Your task to perform on an android device: Open location settings Image 0: 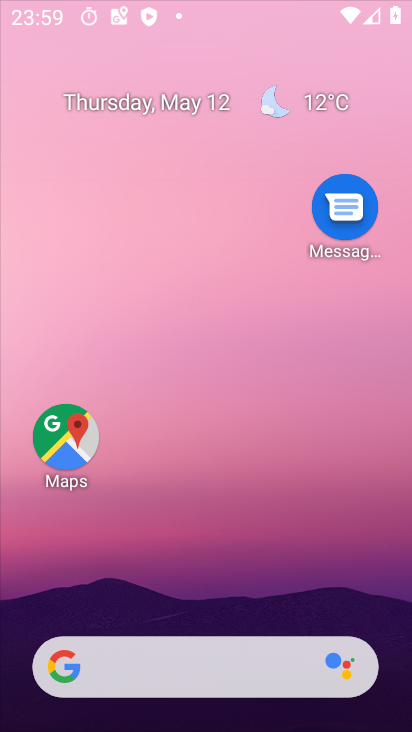
Step 0: press home button
Your task to perform on an android device: Open location settings Image 1: 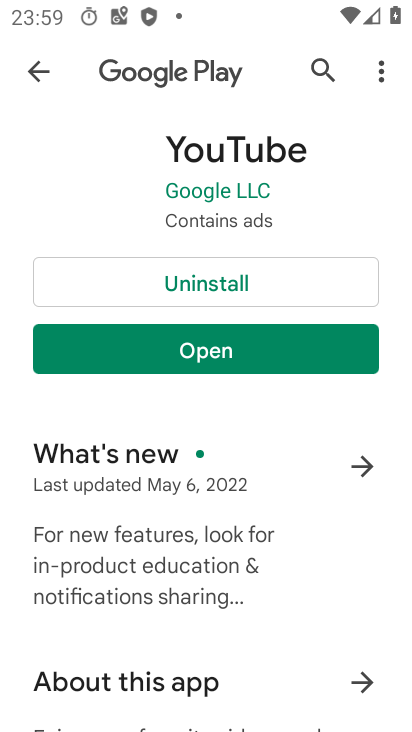
Step 1: press home button
Your task to perform on an android device: Open location settings Image 2: 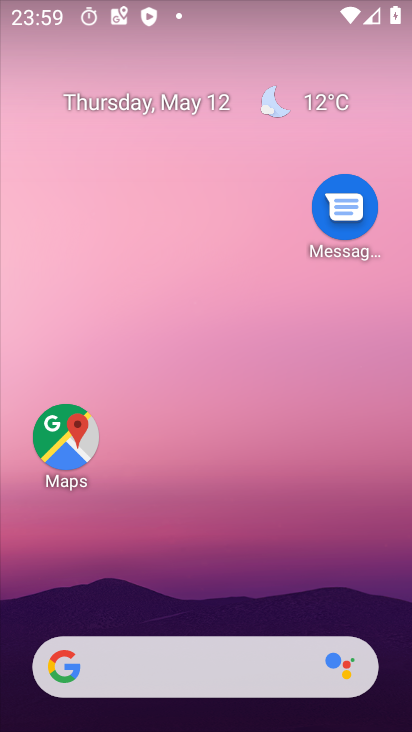
Step 2: drag from (282, 569) to (295, 6)
Your task to perform on an android device: Open location settings Image 3: 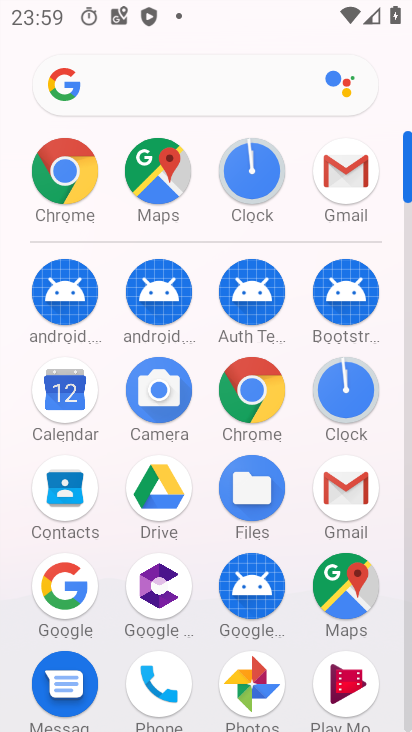
Step 3: click (409, 723)
Your task to perform on an android device: Open location settings Image 4: 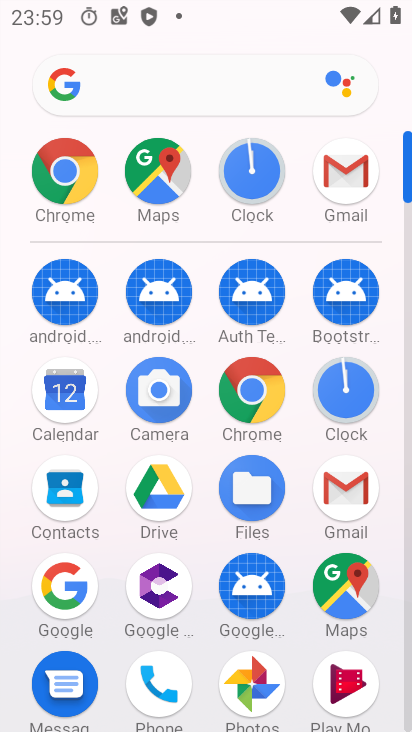
Step 4: click (409, 723)
Your task to perform on an android device: Open location settings Image 5: 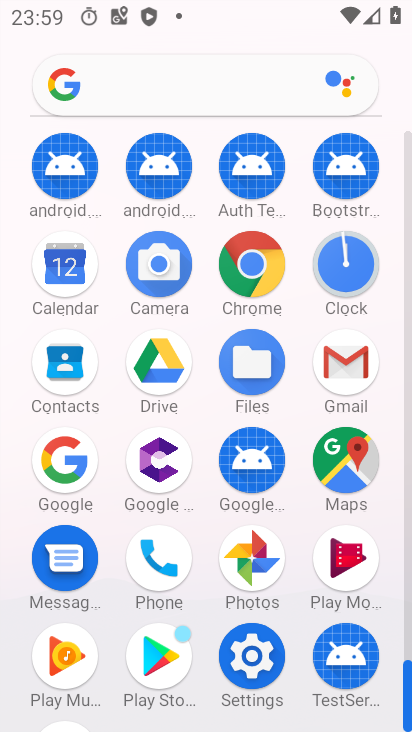
Step 5: click (244, 670)
Your task to perform on an android device: Open location settings Image 6: 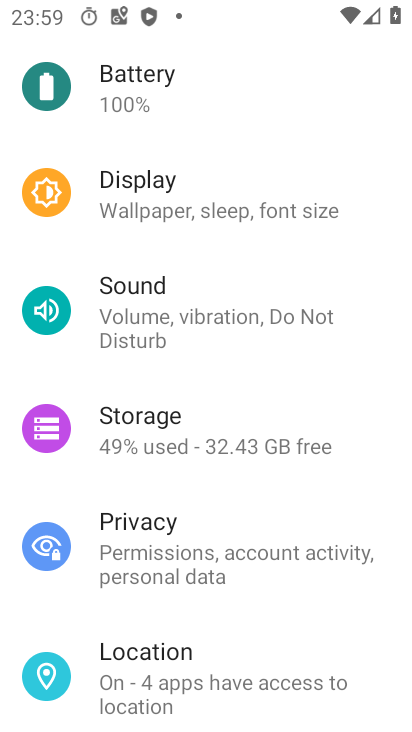
Step 6: click (93, 672)
Your task to perform on an android device: Open location settings Image 7: 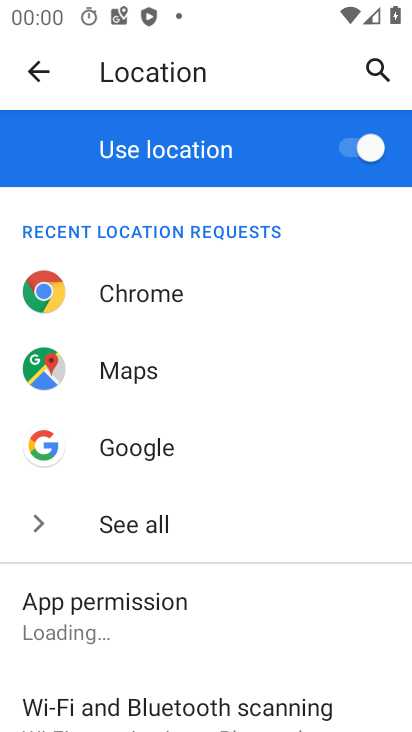
Step 7: task complete